Your task to perform on an android device: Go to Yahoo.com Image 0: 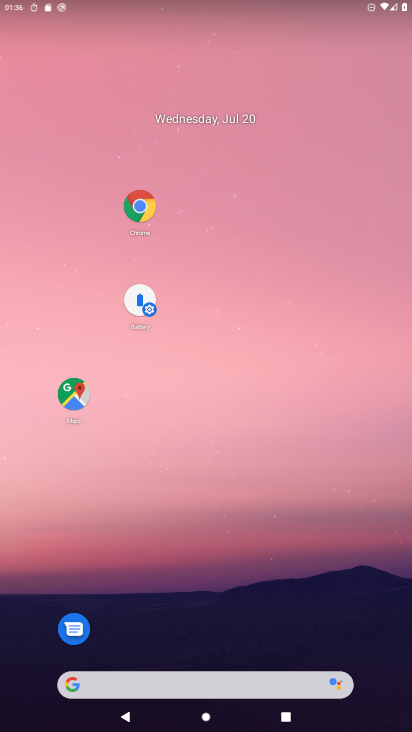
Step 0: drag from (188, 632) to (242, 195)
Your task to perform on an android device: Go to Yahoo.com Image 1: 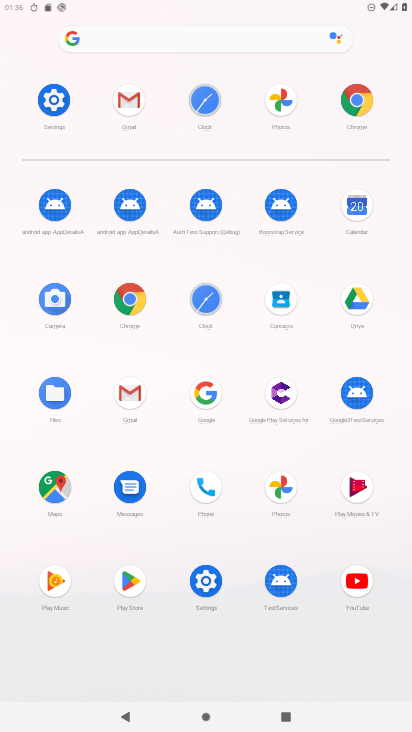
Step 1: click (200, 44)
Your task to perform on an android device: Go to Yahoo.com Image 2: 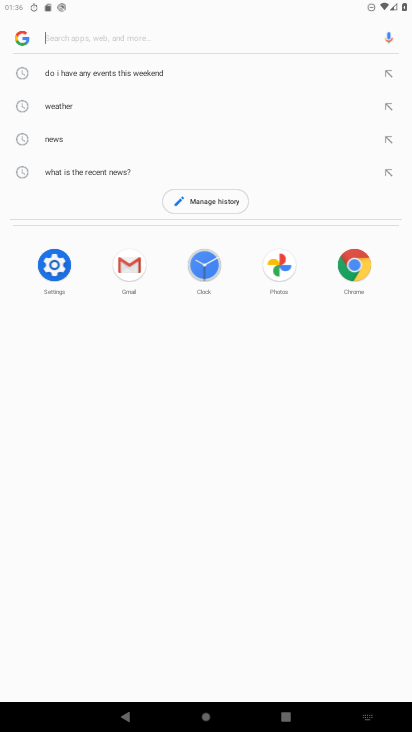
Step 2: type "Yahoo.com"
Your task to perform on an android device: Go to Yahoo.com Image 3: 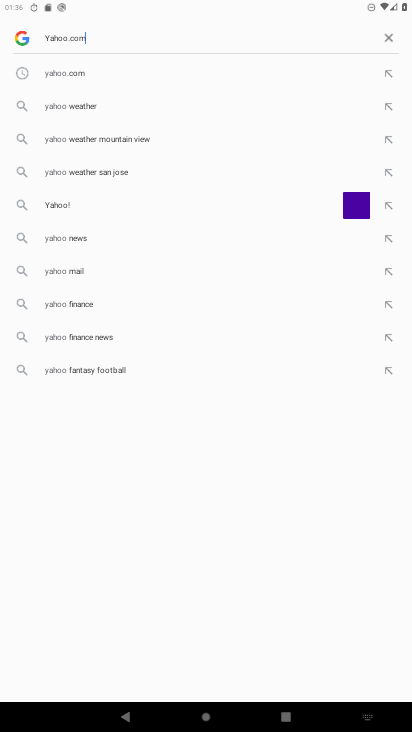
Step 3: type ""
Your task to perform on an android device: Go to Yahoo.com Image 4: 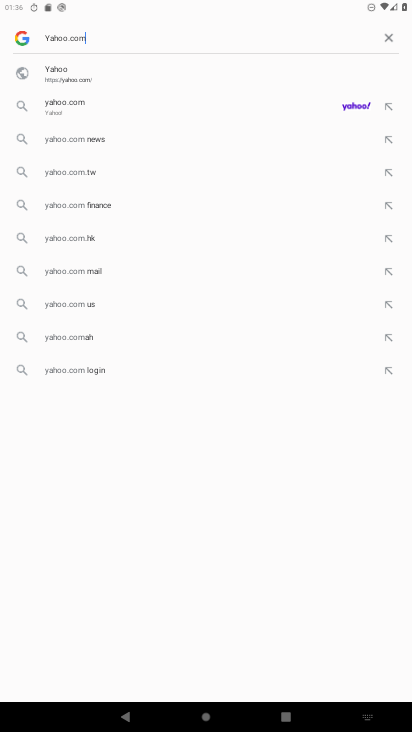
Step 4: click (75, 96)
Your task to perform on an android device: Go to Yahoo.com Image 5: 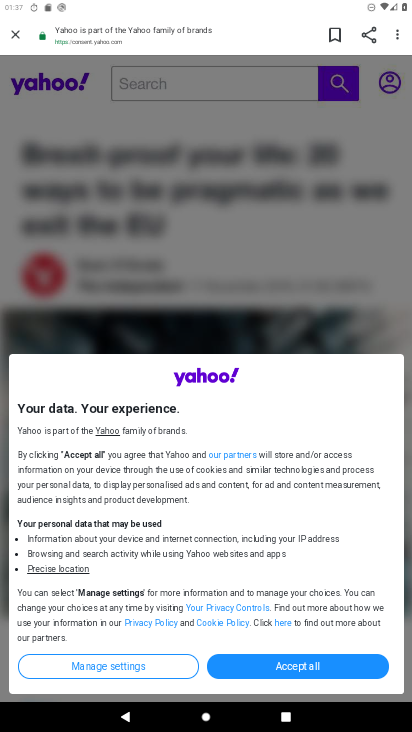
Step 5: task complete